Your task to perform on an android device: turn off javascript in the chrome app Image 0: 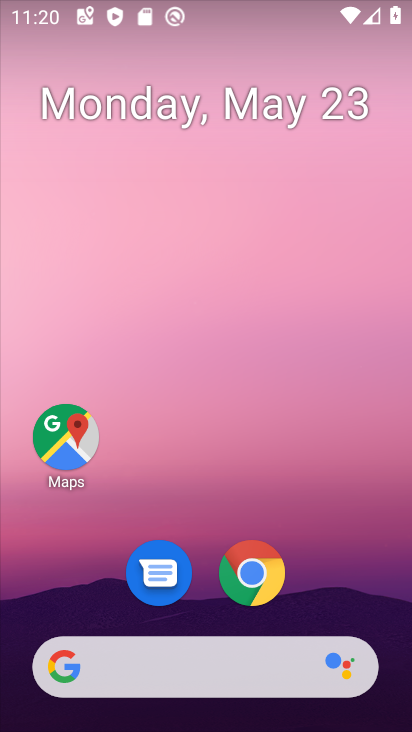
Step 0: drag from (179, 658) to (190, 180)
Your task to perform on an android device: turn off javascript in the chrome app Image 1: 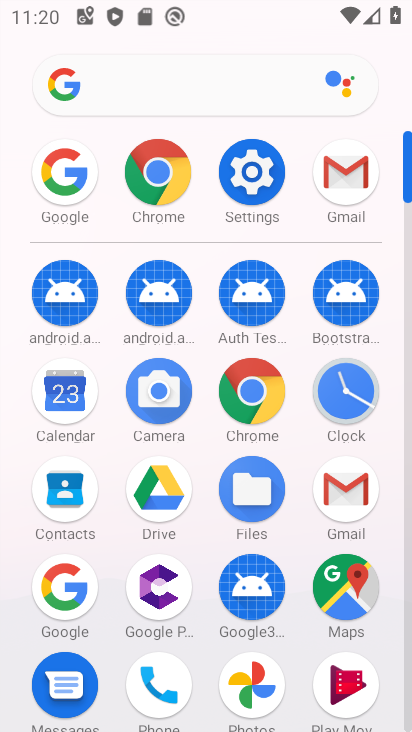
Step 1: click (261, 398)
Your task to perform on an android device: turn off javascript in the chrome app Image 2: 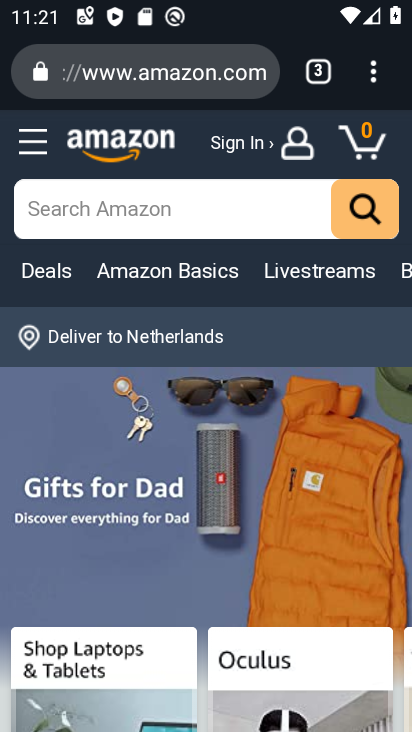
Step 2: click (366, 72)
Your task to perform on an android device: turn off javascript in the chrome app Image 3: 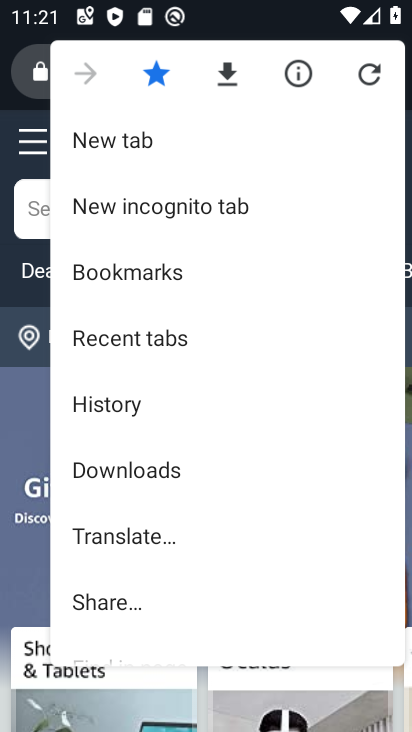
Step 3: drag from (301, 462) to (220, 0)
Your task to perform on an android device: turn off javascript in the chrome app Image 4: 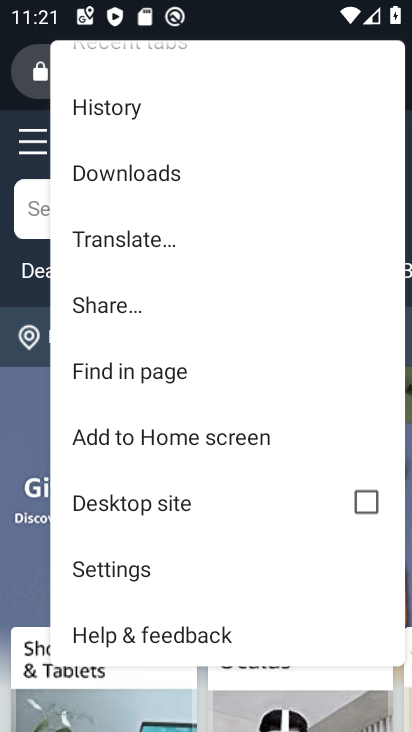
Step 4: click (182, 564)
Your task to perform on an android device: turn off javascript in the chrome app Image 5: 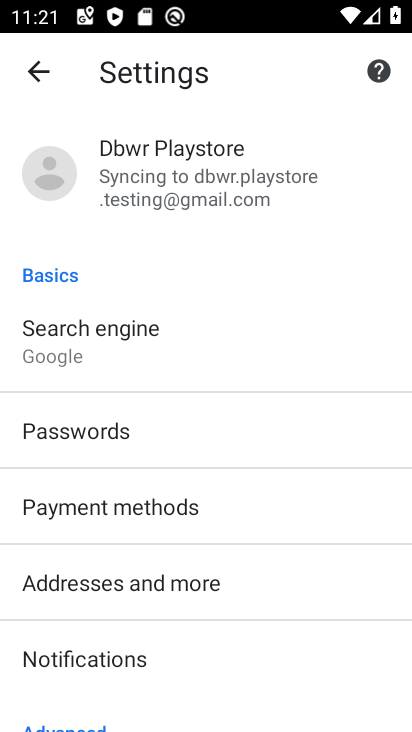
Step 5: drag from (184, 676) to (163, 318)
Your task to perform on an android device: turn off javascript in the chrome app Image 6: 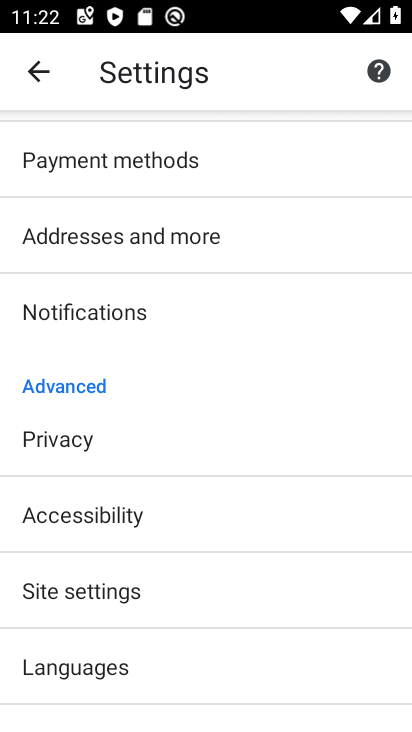
Step 6: click (185, 583)
Your task to perform on an android device: turn off javascript in the chrome app Image 7: 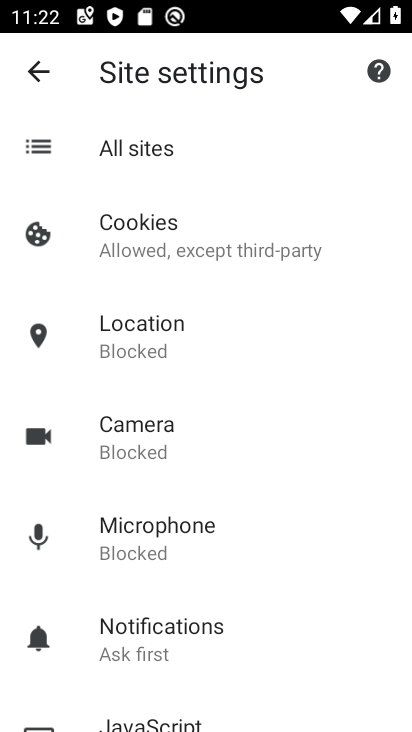
Step 7: drag from (211, 642) to (225, 462)
Your task to perform on an android device: turn off javascript in the chrome app Image 8: 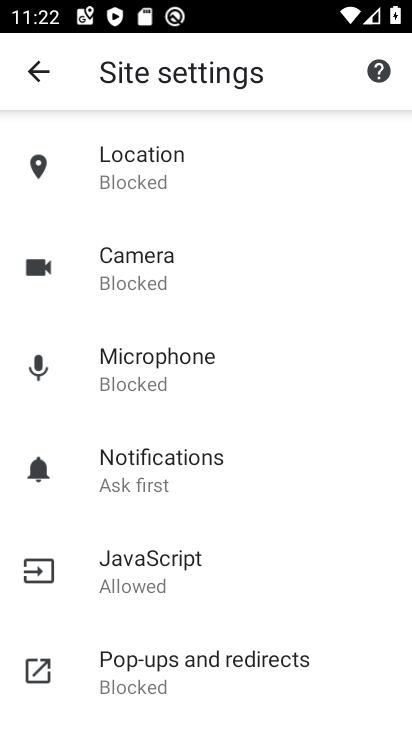
Step 8: click (213, 559)
Your task to perform on an android device: turn off javascript in the chrome app Image 9: 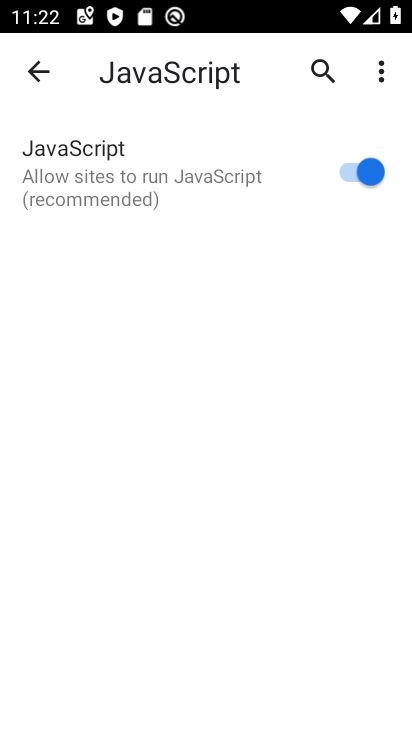
Step 9: click (351, 188)
Your task to perform on an android device: turn off javascript in the chrome app Image 10: 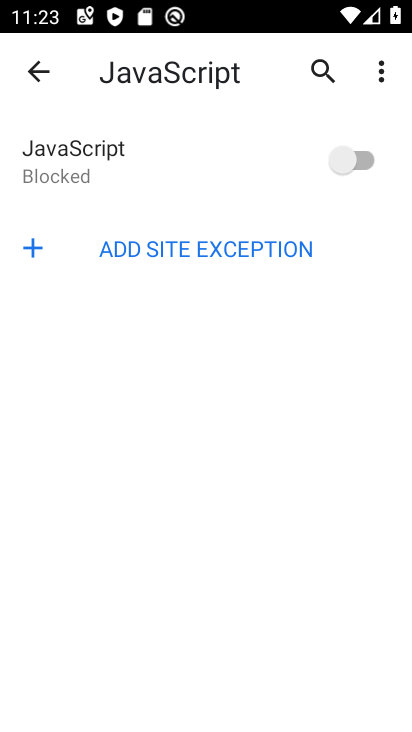
Step 10: task complete